Your task to perform on an android device: empty trash in google photos Image 0: 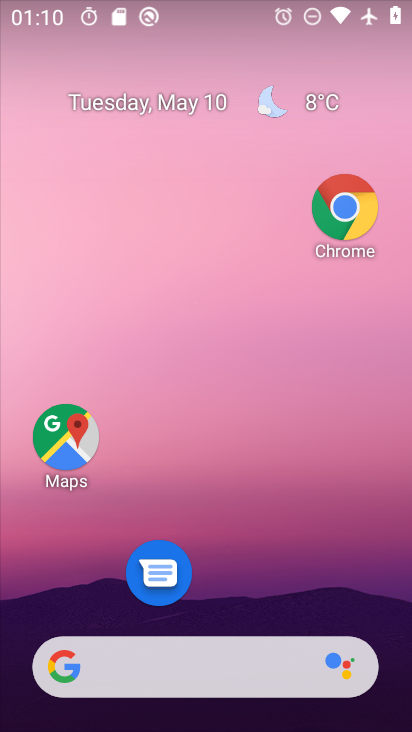
Step 0: drag from (313, 561) to (290, 95)
Your task to perform on an android device: empty trash in google photos Image 1: 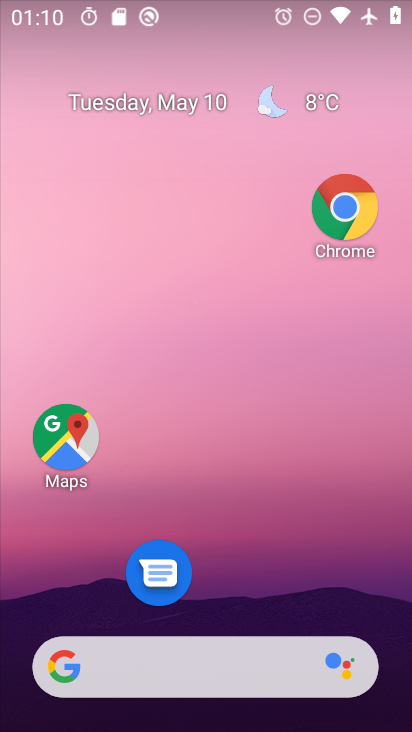
Step 1: drag from (277, 576) to (245, 22)
Your task to perform on an android device: empty trash in google photos Image 2: 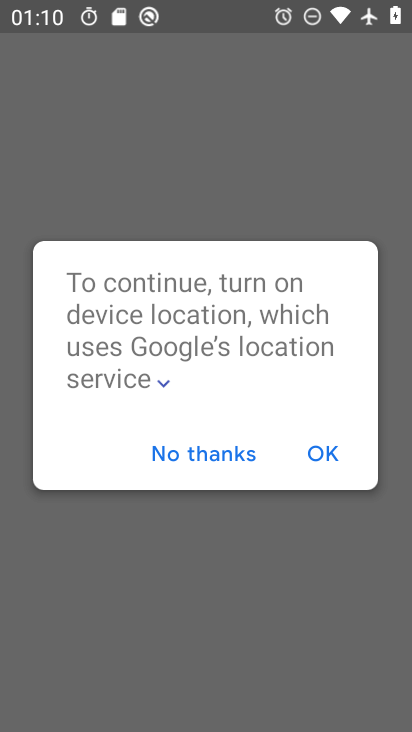
Step 2: press home button
Your task to perform on an android device: empty trash in google photos Image 3: 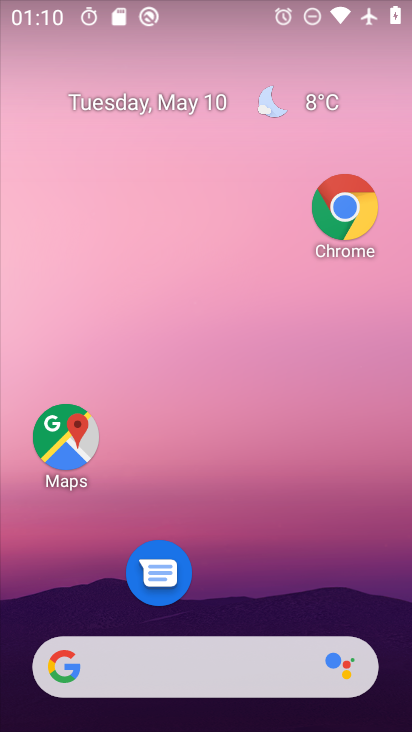
Step 3: drag from (309, 593) to (292, 151)
Your task to perform on an android device: empty trash in google photos Image 4: 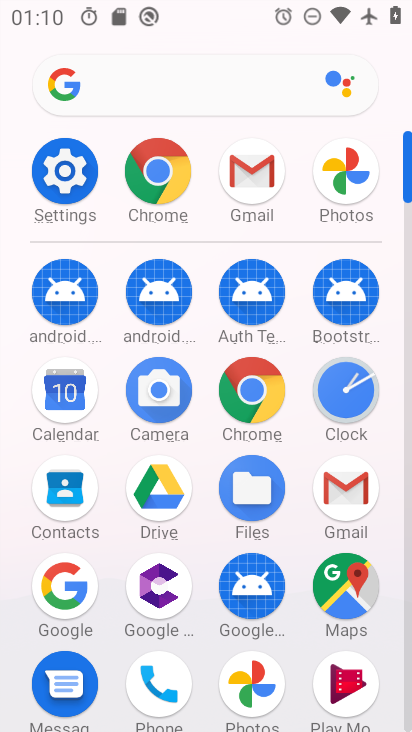
Step 4: click (354, 160)
Your task to perform on an android device: empty trash in google photos Image 5: 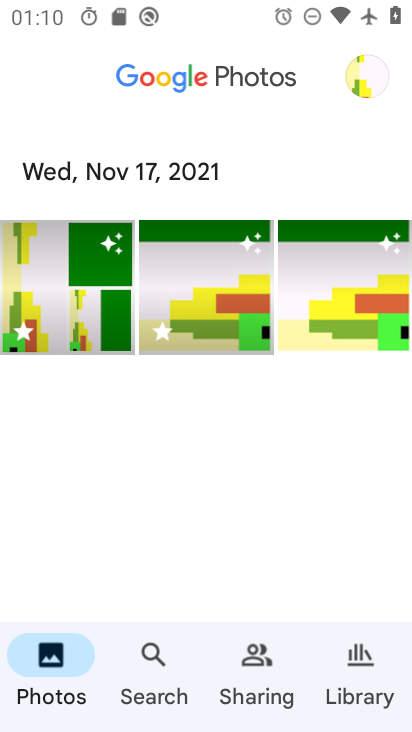
Step 5: click (367, 75)
Your task to perform on an android device: empty trash in google photos Image 6: 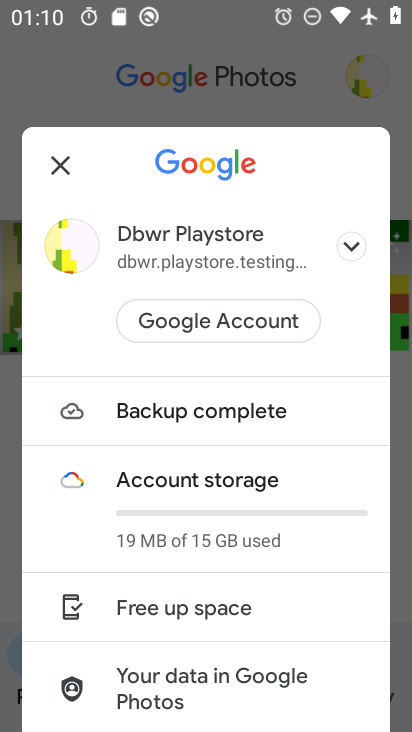
Step 6: drag from (224, 651) to (260, 303)
Your task to perform on an android device: empty trash in google photos Image 7: 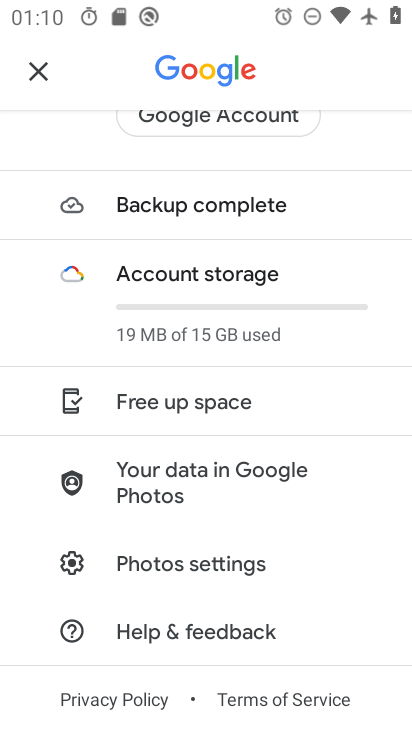
Step 7: click (176, 397)
Your task to perform on an android device: empty trash in google photos Image 8: 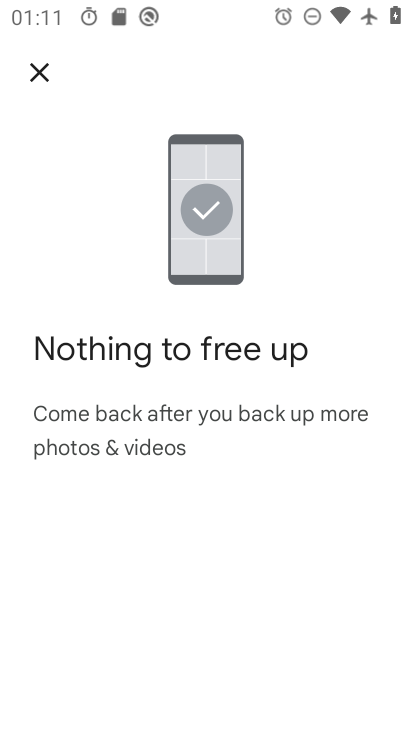
Step 8: task complete